Your task to perform on an android device: Go to wifi settings Image 0: 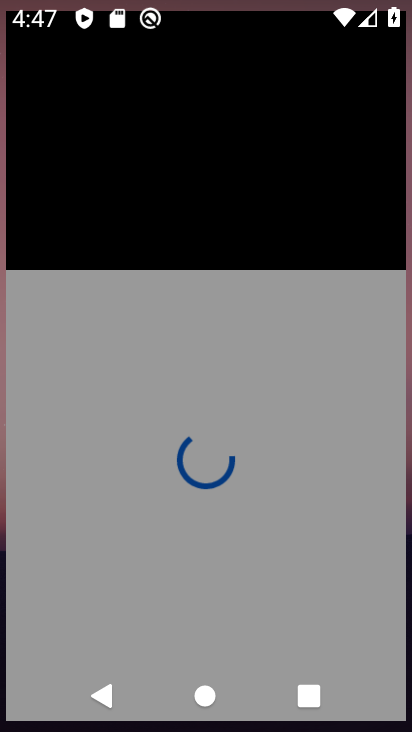
Step 0: drag from (384, 567) to (374, 154)
Your task to perform on an android device: Go to wifi settings Image 1: 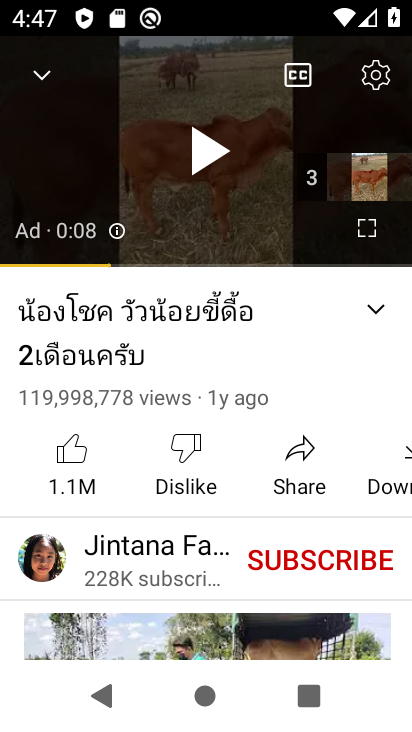
Step 1: press home button
Your task to perform on an android device: Go to wifi settings Image 2: 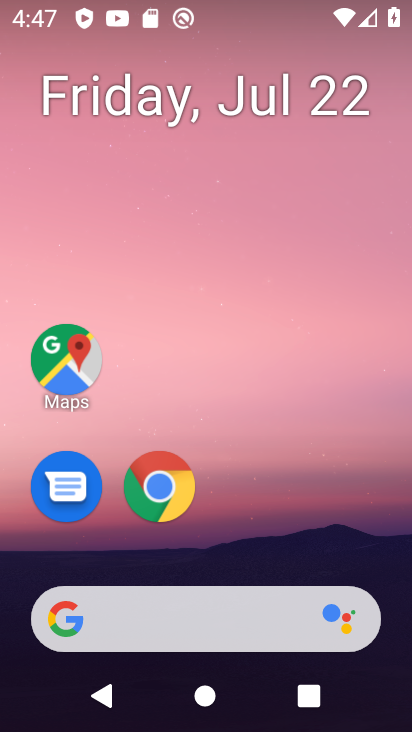
Step 2: drag from (377, 559) to (324, 87)
Your task to perform on an android device: Go to wifi settings Image 3: 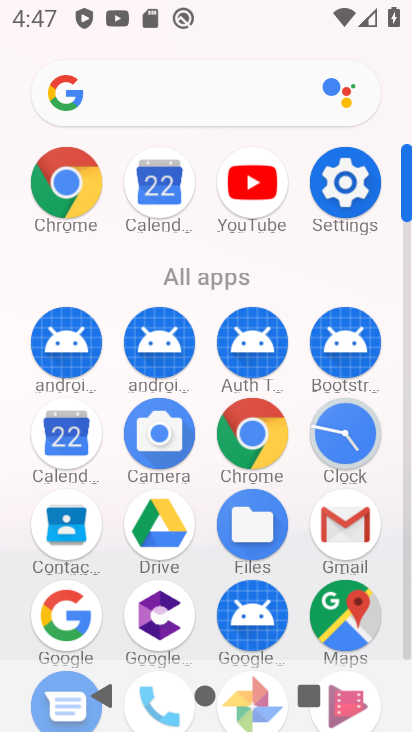
Step 3: click (355, 203)
Your task to perform on an android device: Go to wifi settings Image 4: 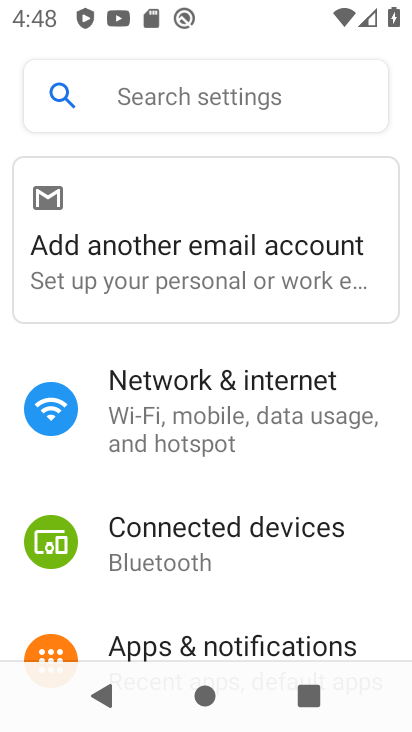
Step 4: click (279, 407)
Your task to perform on an android device: Go to wifi settings Image 5: 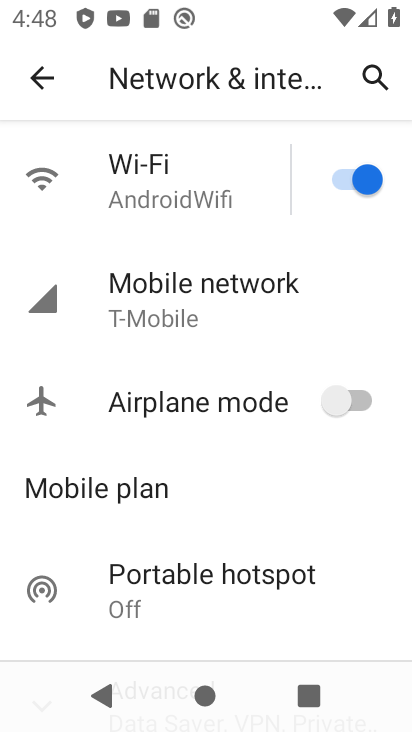
Step 5: click (177, 210)
Your task to perform on an android device: Go to wifi settings Image 6: 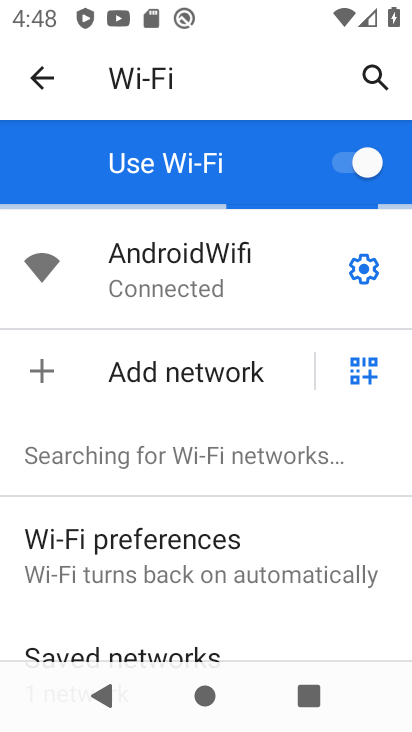
Step 6: task complete